Your task to perform on an android device: add a contact Image 0: 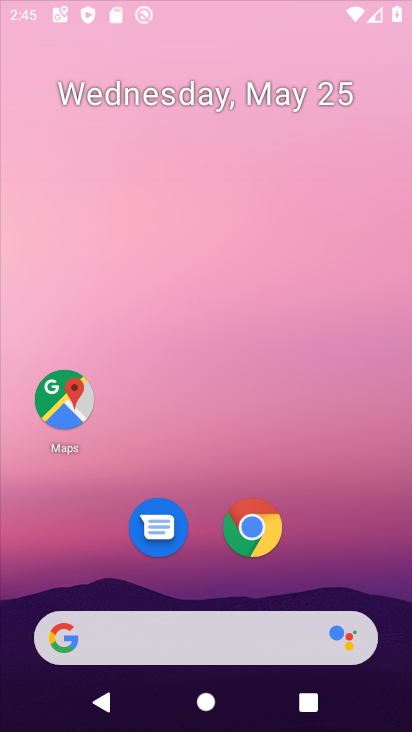
Step 0: click (334, 111)
Your task to perform on an android device: add a contact Image 1: 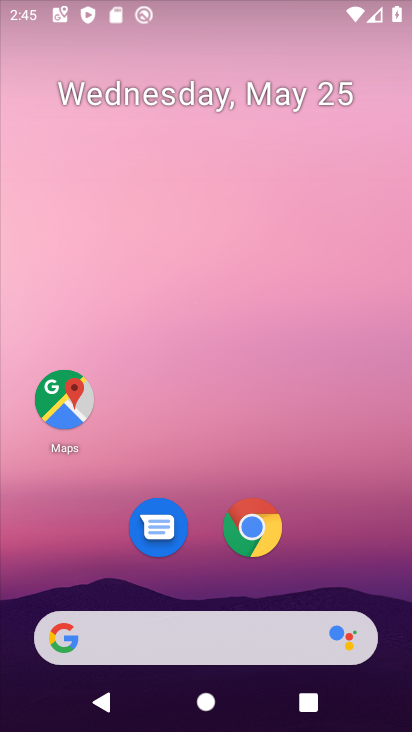
Step 1: drag from (209, 565) to (237, 303)
Your task to perform on an android device: add a contact Image 2: 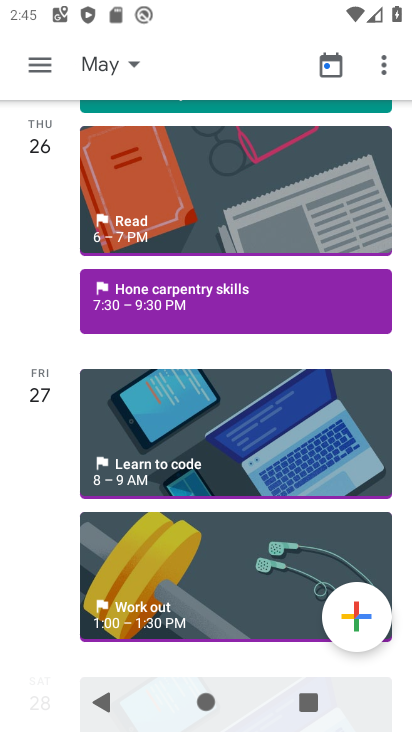
Step 2: press home button
Your task to perform on an android device: add a contact Image 3: 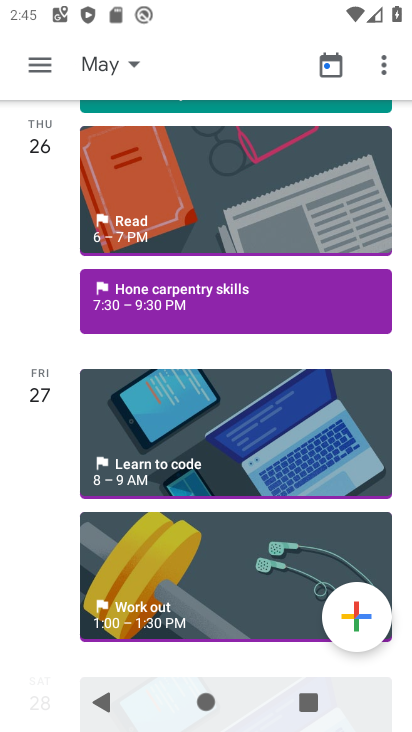
Step 3: drag from (164, 581) to (263, 52)
Your task to perform on an android device: add a contact Image 4: 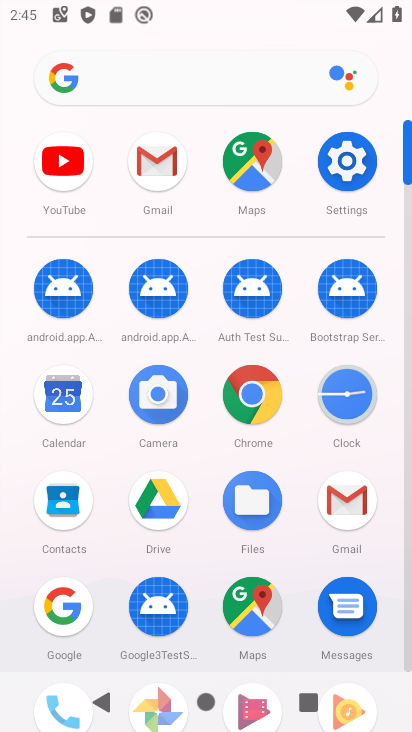
Step 4: click (69, 513)
Your task to perform on an android device: add a contact Image 5: 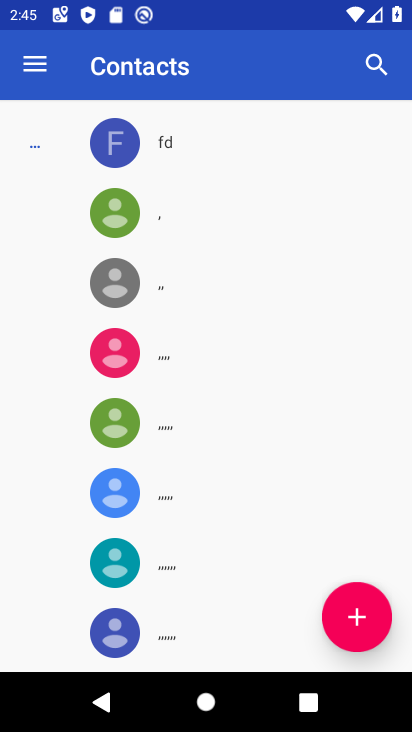
Step 5: drag from (201, 522) to (241, 139)
Your task to perform on an android device: add a contact Image 6: 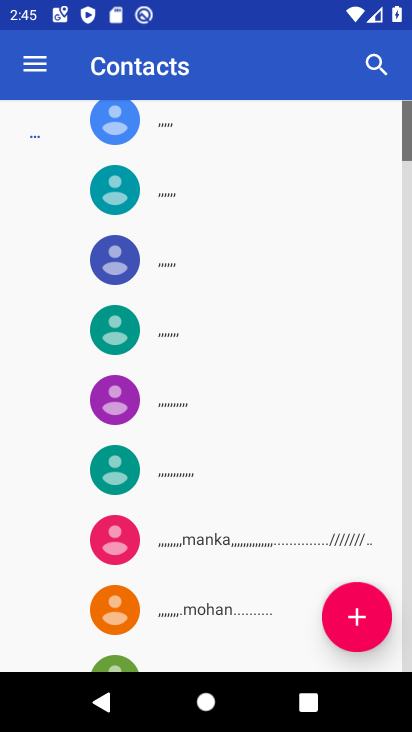
Step 6: click (368, 641)
Your task to perform on an android device: add a contact Image 7: 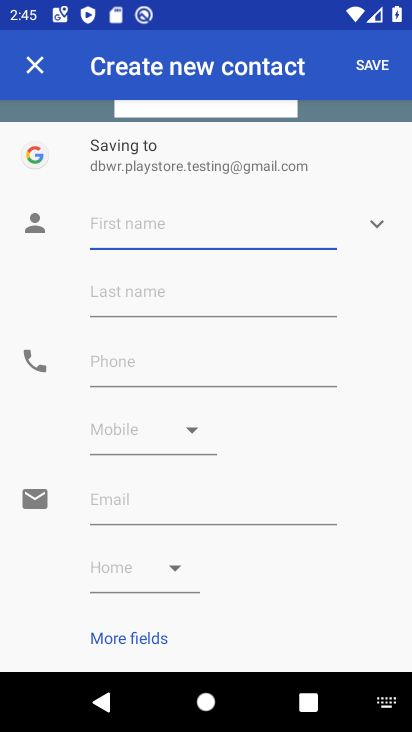
Step 7: click (192, 213)
Your task to perform on an android device: add a contact Image 8: 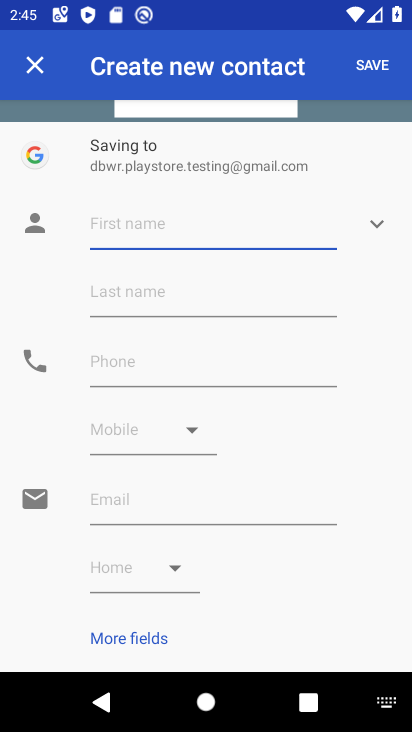
Step 8: type "hgvh"
Your task to perform on an android device: add a contact Image 9: 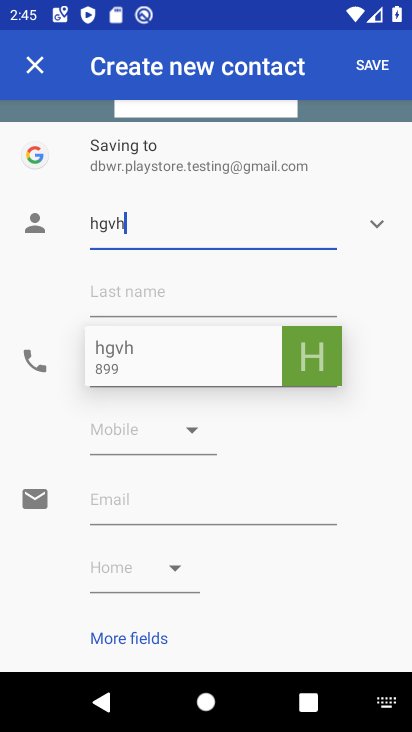
Step 9: click (373, 71)
Your task to perform on an android device: add a contact Image 10: 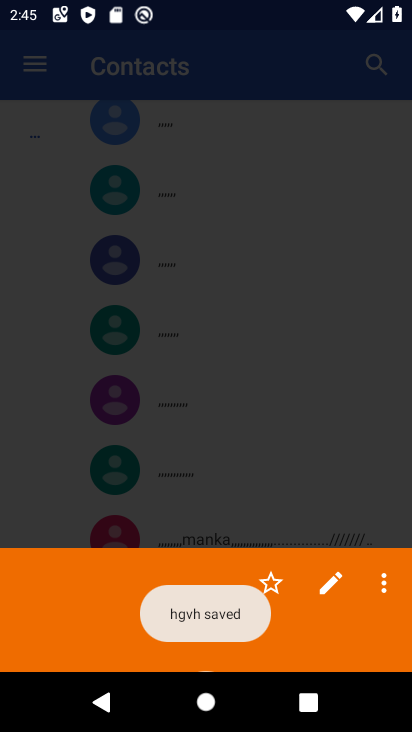
Step 10: task complete